Your task to perform on an android device: Go to ESPN.com Image 0: 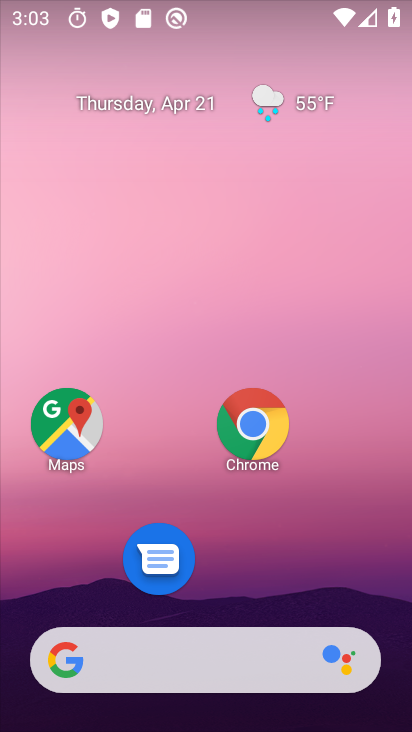
Step 0: drag from (278, 514) to (227, 102)
Your task to perform on an android device: Go to ESPN.com Image 1: 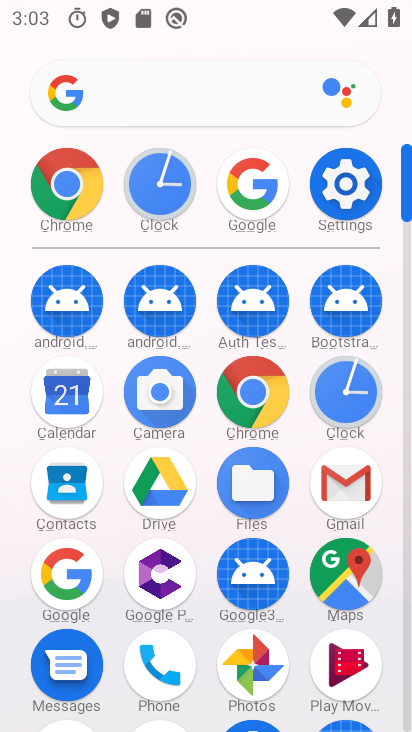
Step 1: click (256, 185)
Your task to perform on an android device: Go to ESPN.com Image 2: 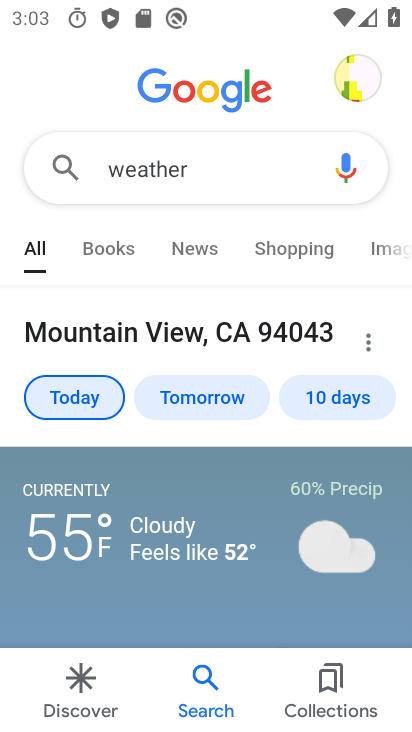
Step 2: click (222, 171)
Your task to perform on an android device: Go to ESPN.com Image 3: 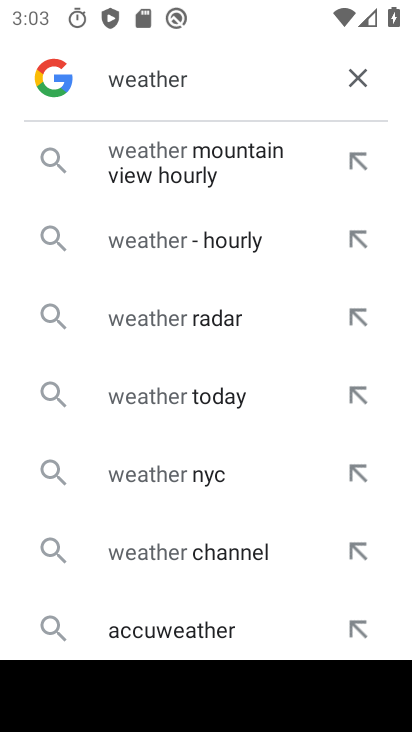
Step 3: click (349, 81)
Your task to perform on an android device: Go to ESPN.com Image 4: 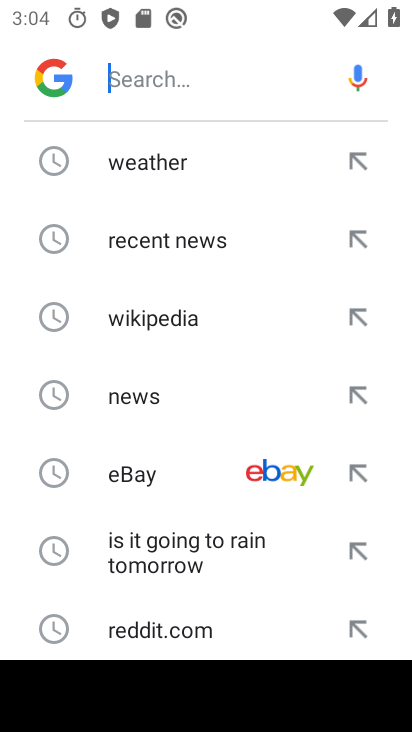
Step 4: type "espn.com"
Your task to perform on an android device: Go to ESPN.com Image 5: 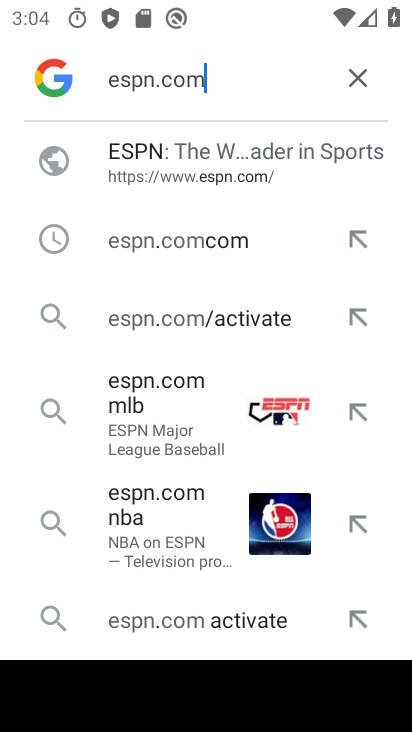
Step 5: click (186, 238)
Your task to perform on an android device: Go to ESPN.com Image 6: 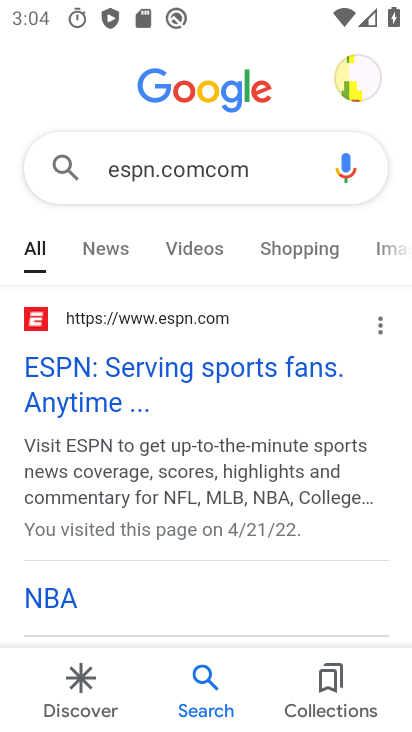
Step 6: task complete